Your task to perform on an android device: Go to settings Image 0: 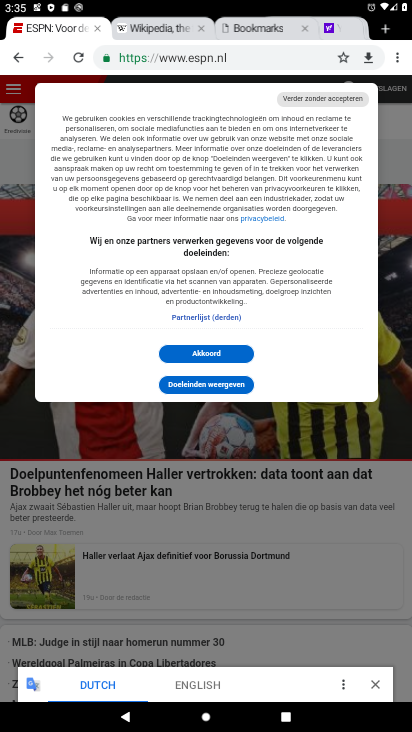
Step 0: drag from (131, 155) to (102, 565)
Your task to perform on an android device: Go to settings Image 1: 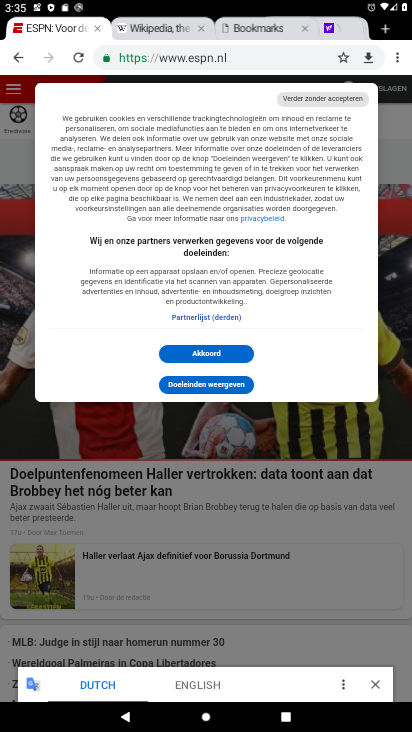
Step 1: drag from (271, 8) to (207, 703)
Your task to perform on an android device: Go to settings Image 2: 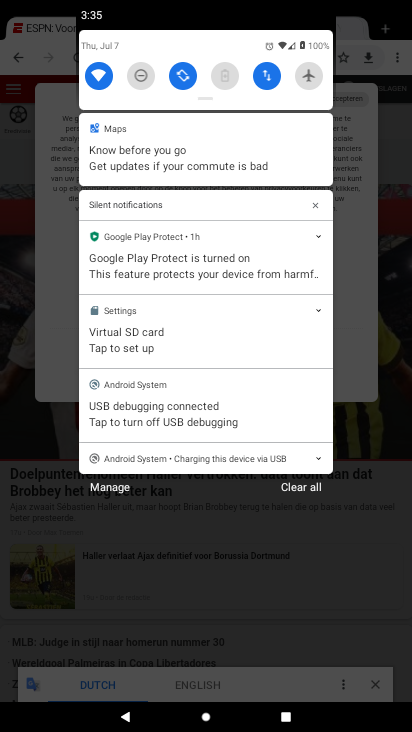
Step 2: drag from (186, 38) to (159, 417)
Your task to perform on an android device: Go to settings Image 3: 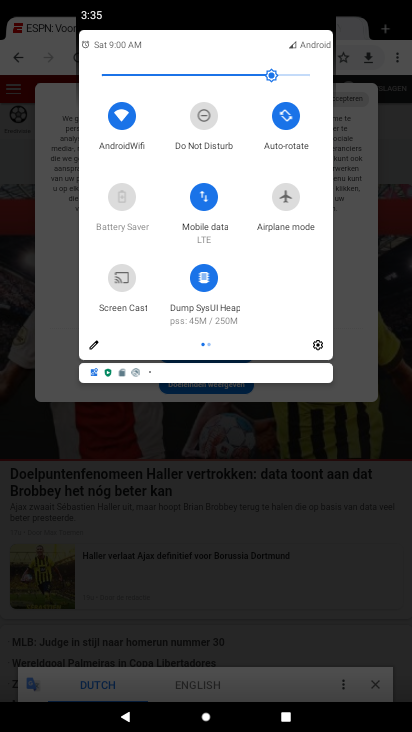
Step 3: click (319, 347)
Your task to perform on an android device: Go to settings Image 4: 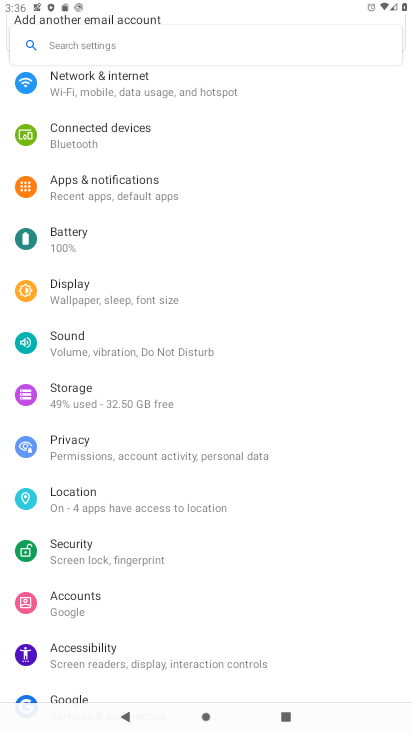
Step 4: task complete